Your task to perform on an android device: move an email to a new category in the gmail app Image 0: 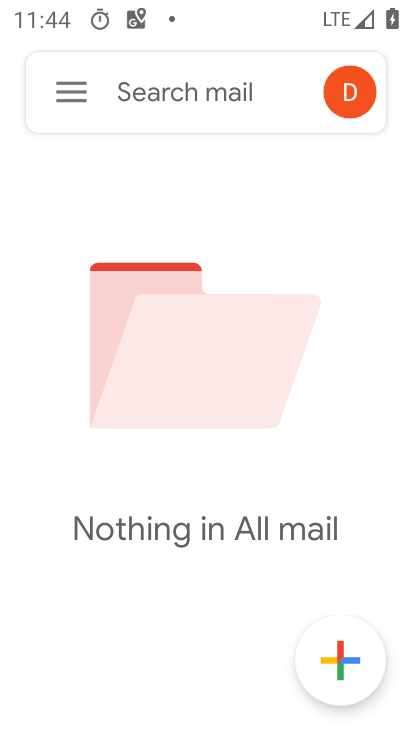
Step 0: click (75, 91)
Your task to perform on an android device: move an email to a new category in the gmail app Image 1: 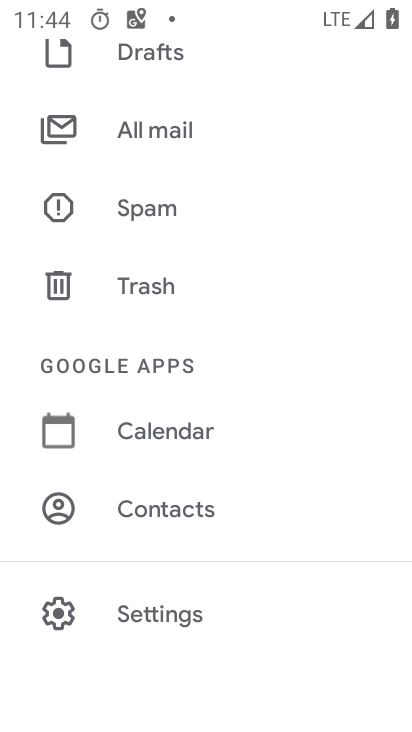
Step 1: click (148, 131)
Your task to perform on an android device: move an email to a new category in the gmail app Image 2: 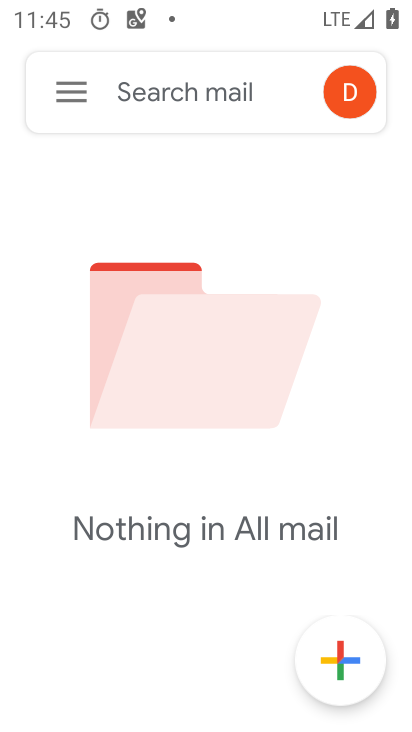
Step 2: task complete